Your task to perform on an android device: open chrome and create a bookmark for the current page Image 0: 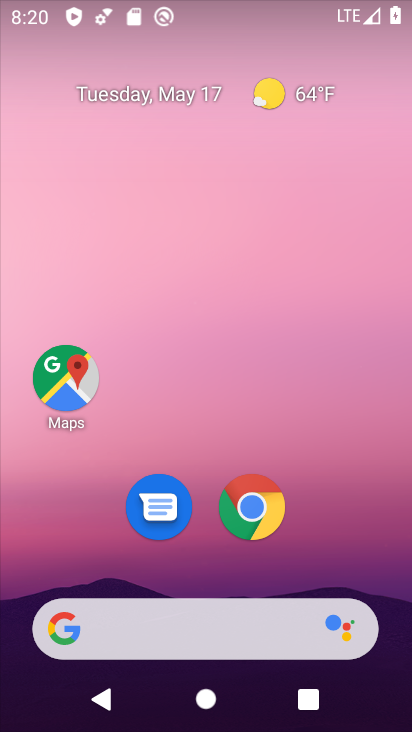
Step 0: click (252, 510)
Your task to perform on an android device: open chrome and create a bookmark for the current page Image 1: 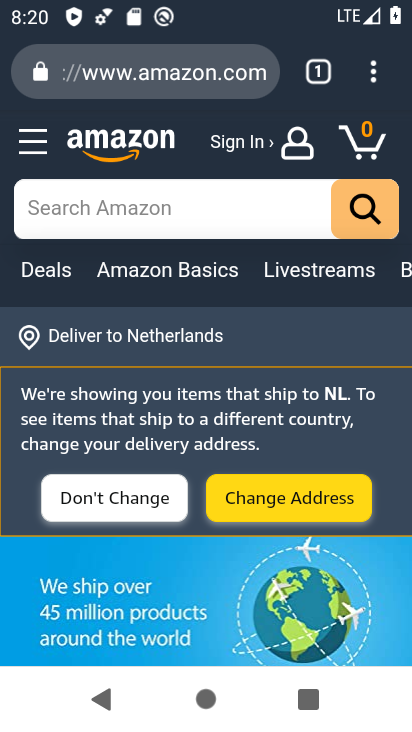
Step 1: click (375, 71)
Your task to perform on an android device: open chrome and create a bookmark for the current page Image 2: 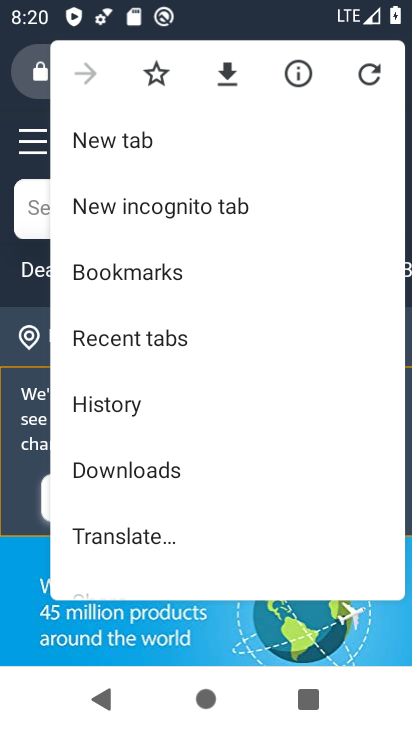
Step 2: click (159, 70)
Your task to perform on an android device: open chrome and create a bookmark for the current page Image 3: 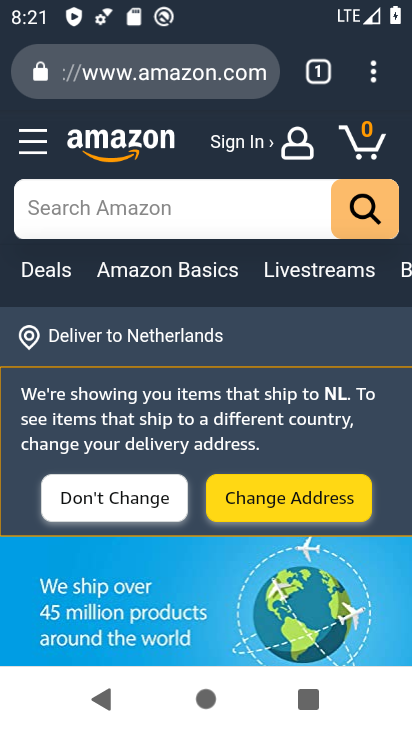
Step 3: task complete